Your task to perform on an android device: Show the shopping cart on target. Add lg ultragear to the cart on target, then select checkout. Image 0: 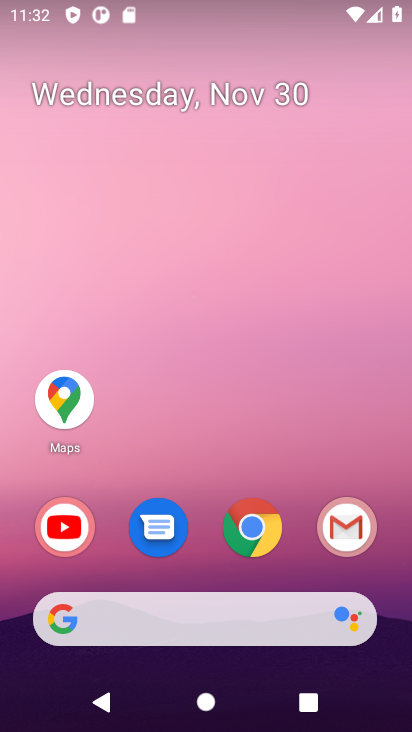
Step 0: click (254, 535)
Your task to perform on an android device: Show the shopping cart on target. Add lg ultragear to the cart on target, then select checkout. Image 1: 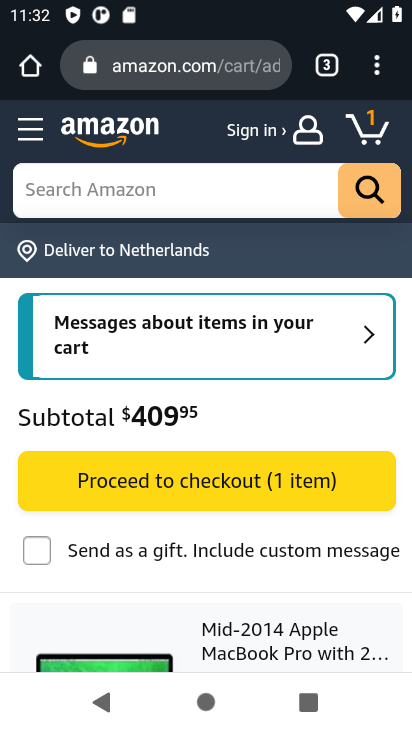
Step 1: click (189, 67)
Your task to perform on an android device: Show the shopping cart on target. Add lg ultragear to the cart on target, then select checkout. Image 2: 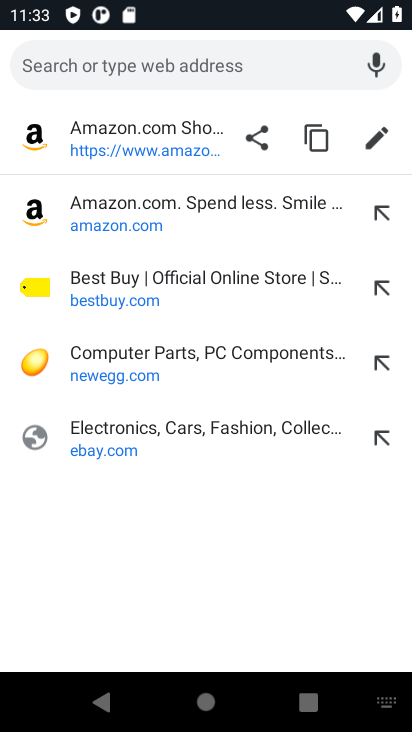
Step 2: type "target.com"
Your task to perform on an android device: Show the shopping cart on target. Add lg ultragear to the cart on target, then select checkout. Image 3: 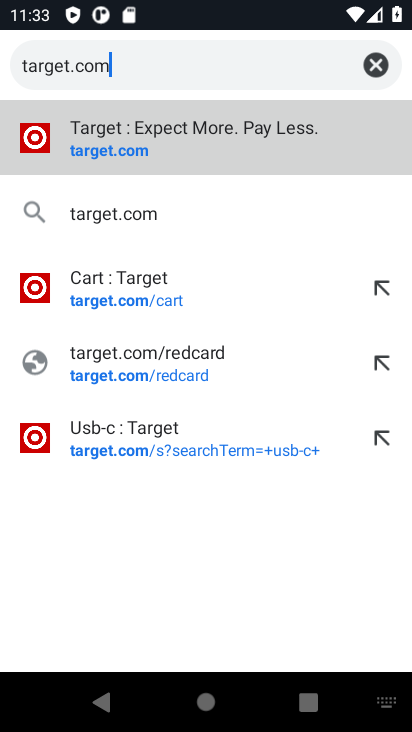
Step 3: click (109, 151)
Your task to perform on an android device: Show the shopping cart on target. Add lg ultragear to the cart on target, then select checkout. Image 4: 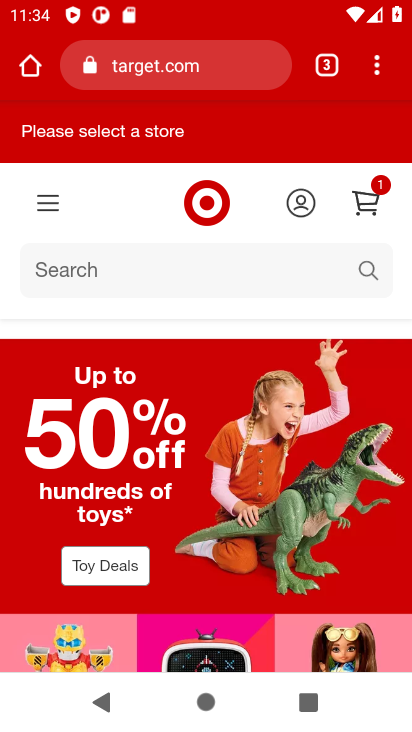
Step 4: click (360, 207)
Your task to perform on an android device: Show the shopping cart on target. Add lg ultragear to the cart on target, then select checkout. Image 5: 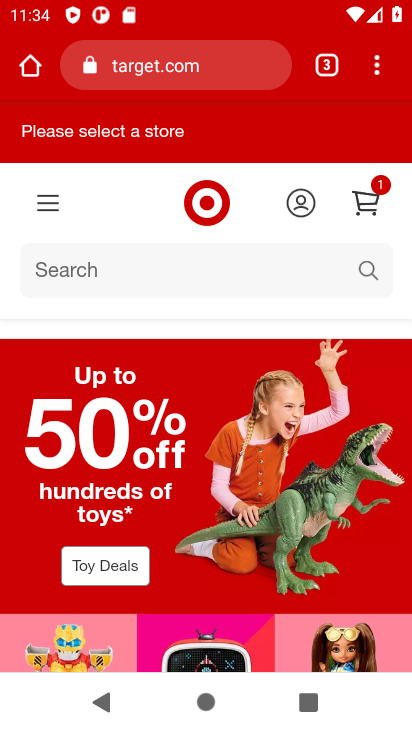
Step 5: click (360, 207)
Your task to perform on an android device: Show the shopping cart on target. Add lg ultragear to the cart on target, then select checkout. Image 6: 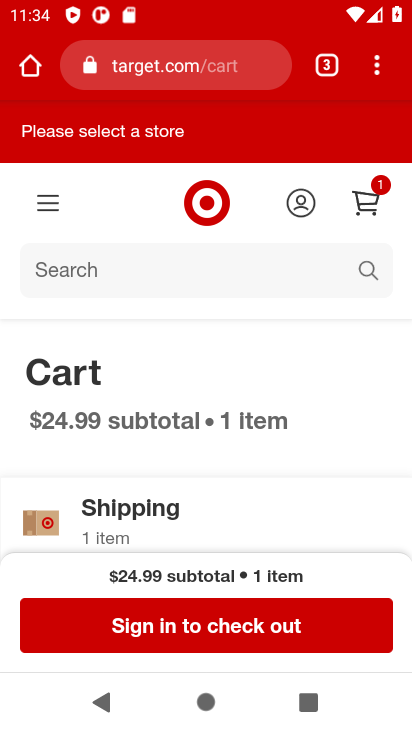
Step 6: drag from (268, 516) to (255, 300)
Your task to perform on an android device: Show the shopping cart on target. Add lg ultragear to the cart on target, then select checkout. Image 7: 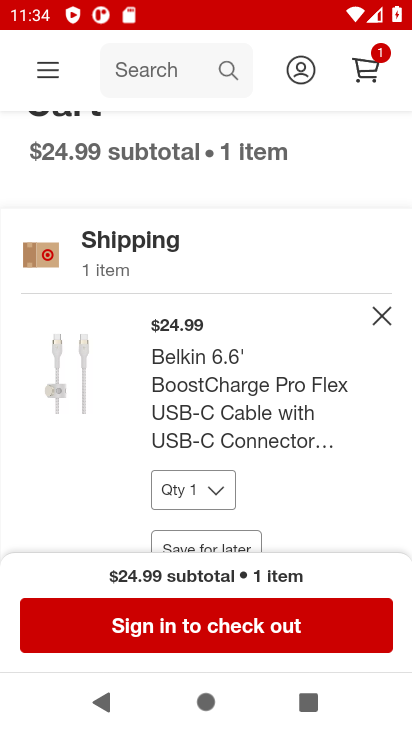
Step 7: click (227, 71)
Your task to perform on an android device: Show the shopping cart on target. Add lg ultragear to the cart on target, then select checkout. Image 8: 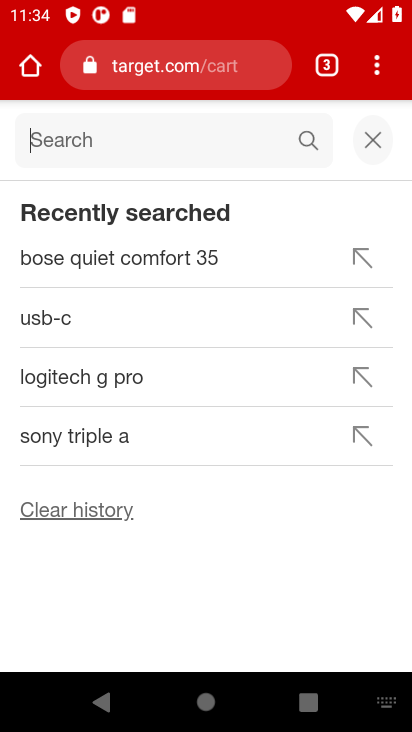
Step 8: type "lg ultragear "
Your task to perform on an android device: Show the shopping cart on target. Add lg ultragear to the cart on target, then select checkout. Image 9: 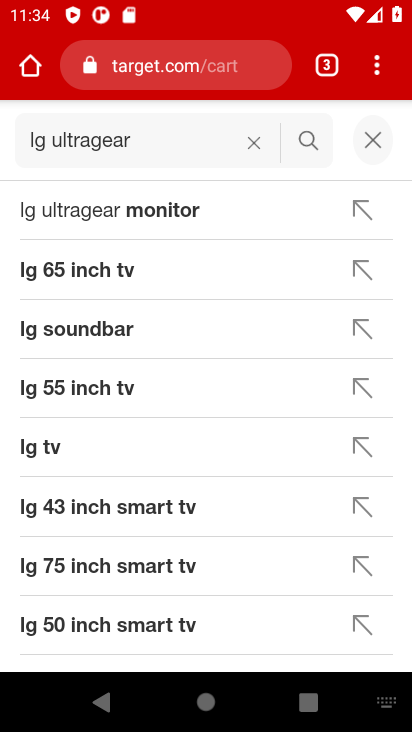
Step 9: click (310, 143)
Your task to perform on an android device: Show the shopping cart on target. Add lg ultragear to the cart on target, then select checkout. Image 10: 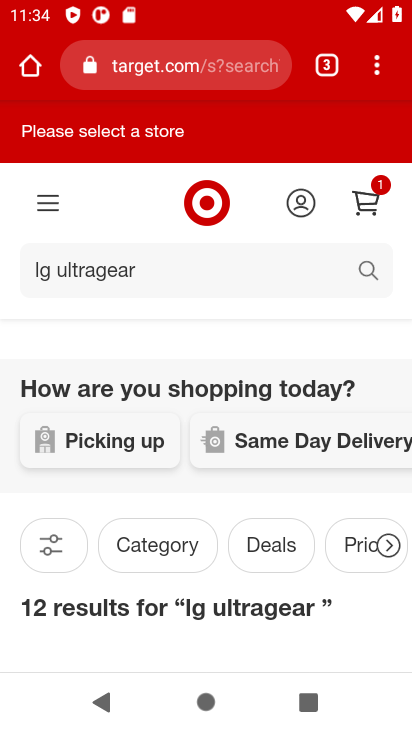
Step 10: drag from (187, 472) to (176, 229)
Your task to perform on an android device: Show the shopping cart on target. Add lg ultragear to the cart on target, then select checkout. Image 11: 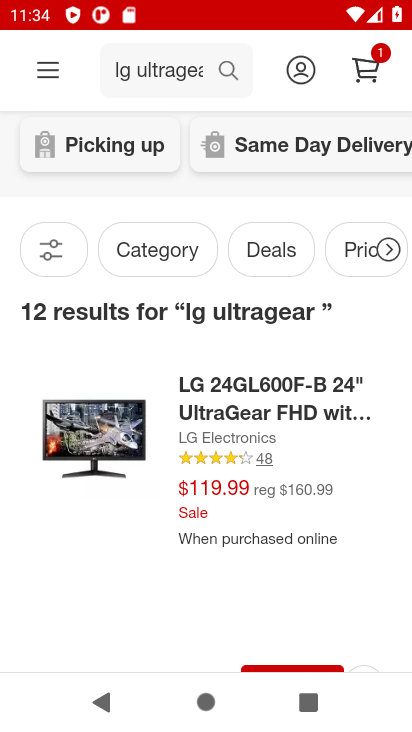
Step 11: drag from (169, 417) to (157, 259)
Your task to perform on an android device: Show the shopping cart on target. Add lg ultragear to the cart on target, then select checkout. Image 12: 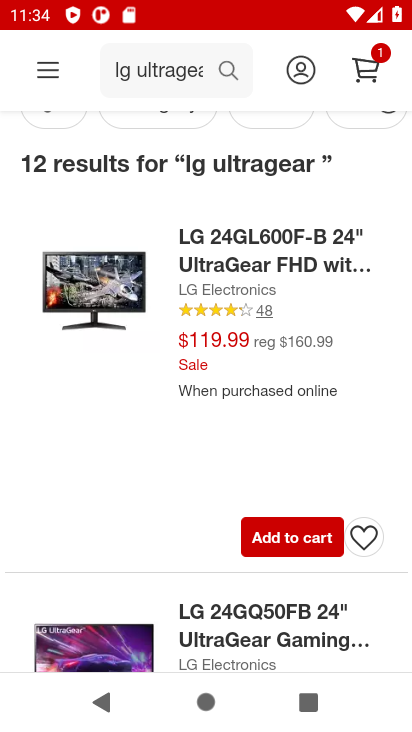
Step 12: click (291, 546)
Your task to perform on an android device: Show the shopping cart on target. Add lg ultragear to the cart on target, then select checkout. Image 13: 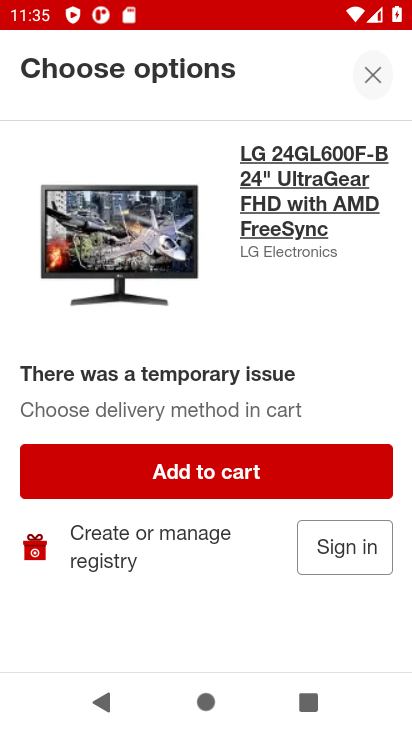
Step 13: click (187, 468)
Your task to perform on an android device: Show the shopping cart on target. Add lg ultragear to the cart on target, then select checkout. Image 14: 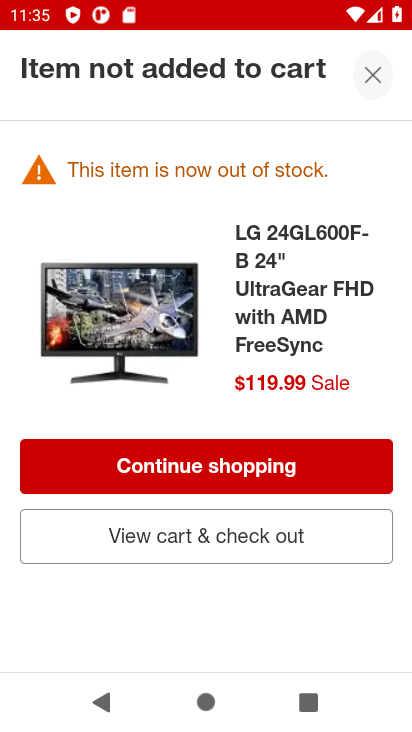
Step 14: click (180, 531)
Your task to perform on an android device: Show the shopping cart on target. Add lg ultragear to the cart on target, then select checkout. Image 15: 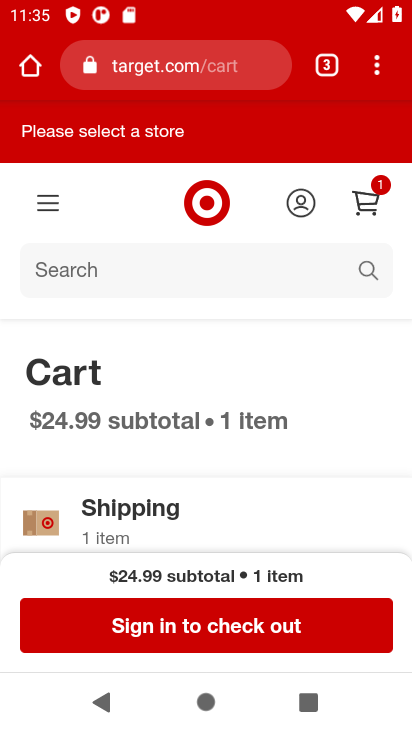
Step 15: click (200, 634)
Your task to perform on an android device: Show the shopping cart on target. Add lg ultragear to the cart on target, then select checkout. Image 16: 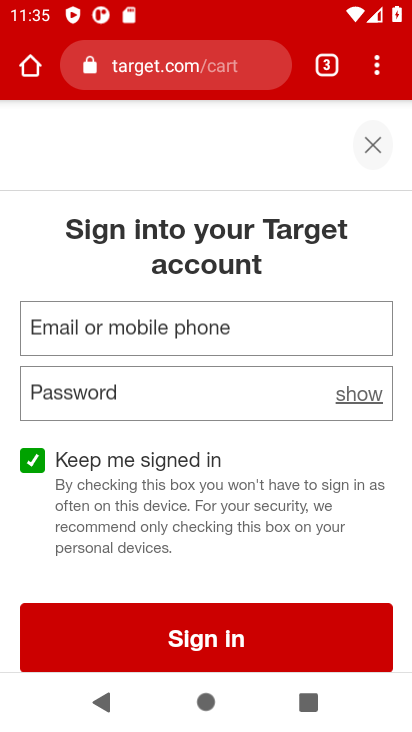
Step 16: task complete